Your task to perform on an android device: Open Google Chrome Image 0: 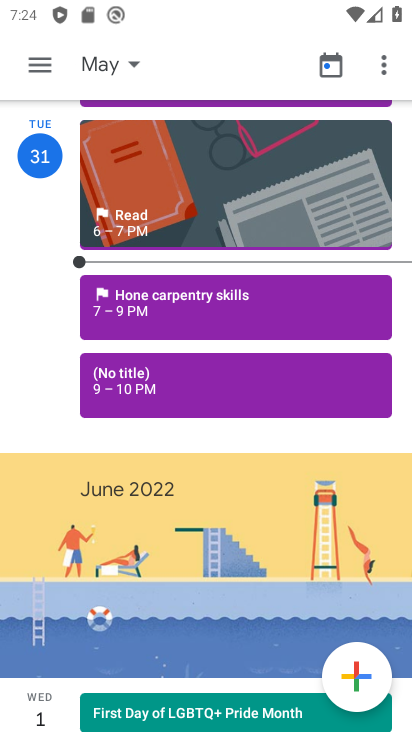
Step 0: press home button
Your task to perform on an android device: Open Google Chrome Image 1: 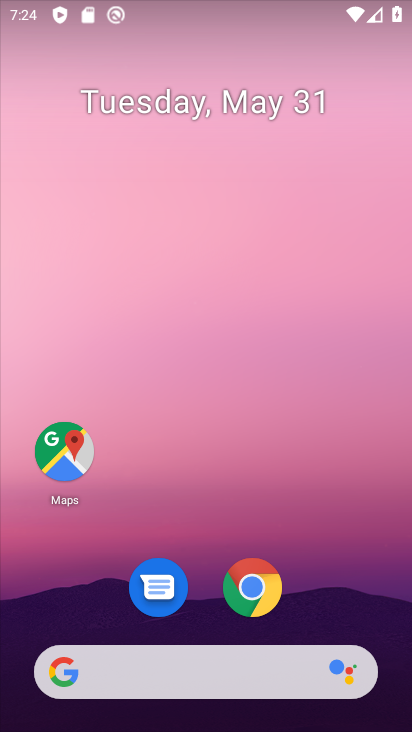
Step 1: click (256, 591)
Your task to perform on an android device: Open Google Chrome Image 2: 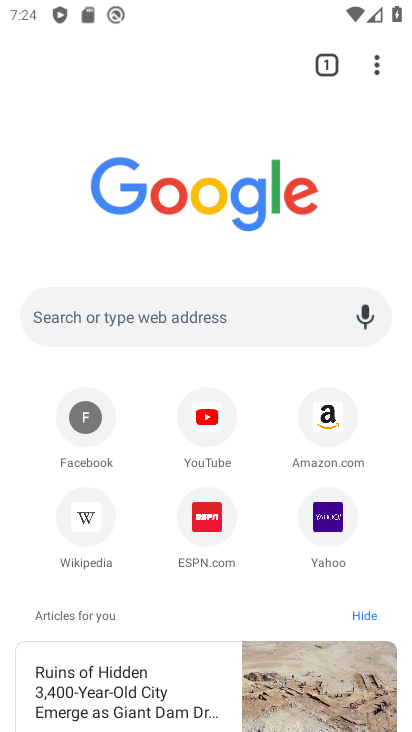
Step 2: task complete